Your task to perform on an android device: Open wifi settings Image 0: 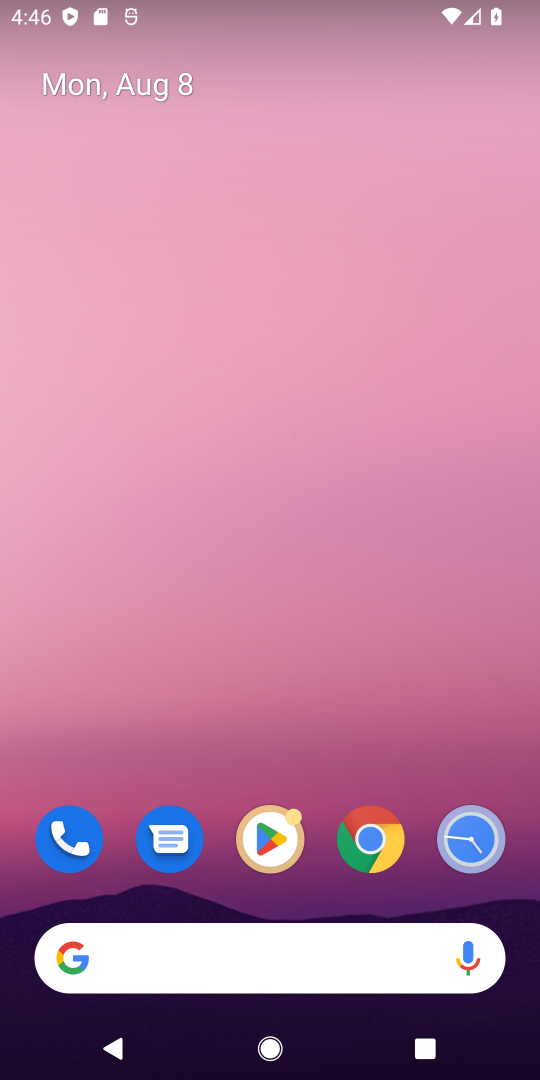
Step 0: drag from (225, 900) to (237, 51)
Your task to perform on an android device: Open wifi settings Image 1: 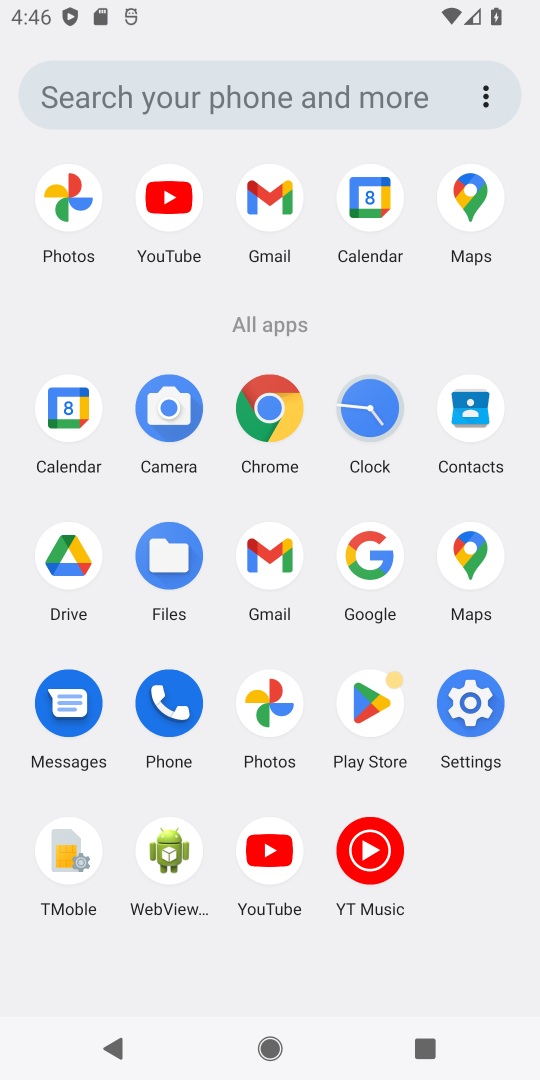
Step 1: click (473, 727)
Your task to perform on an android device: Open wifi settings Image 2: 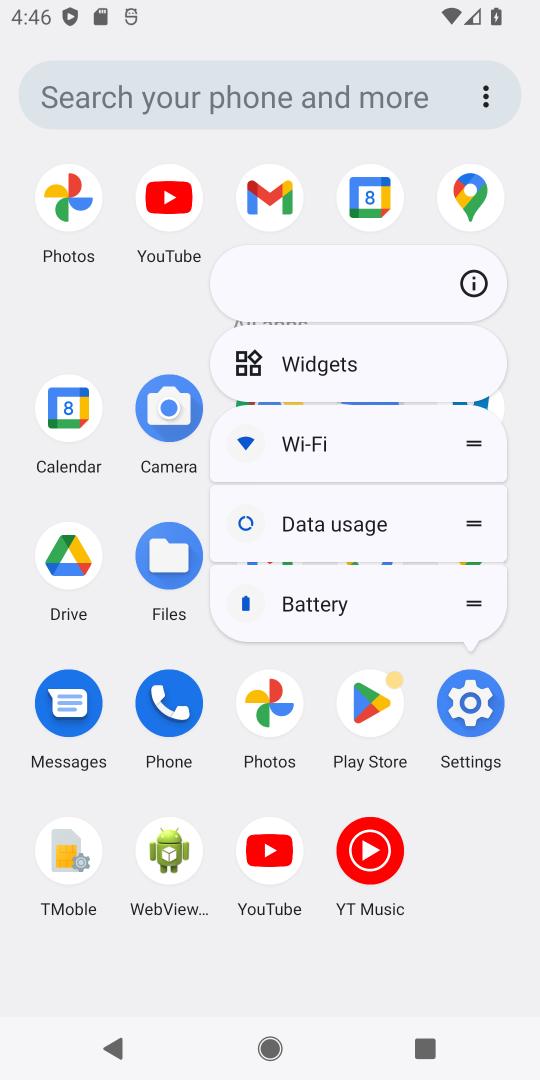
Step 2: click (473, 727)
Your task to perform on an android device: Open wifi settings Image 3: 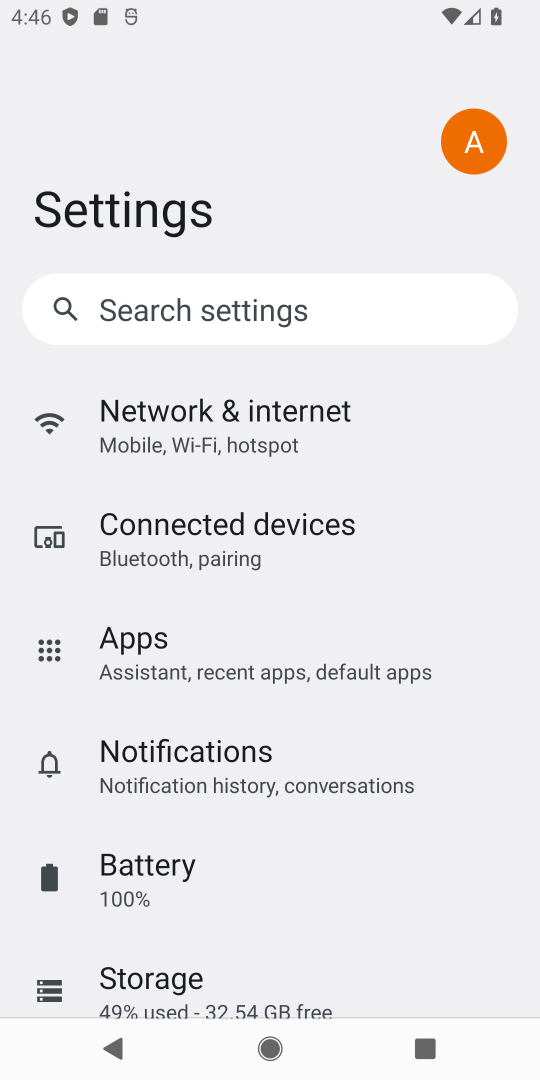
Step 3: click (263, 452)
Your task to perform on an android device: Open wifi settings Image 4: 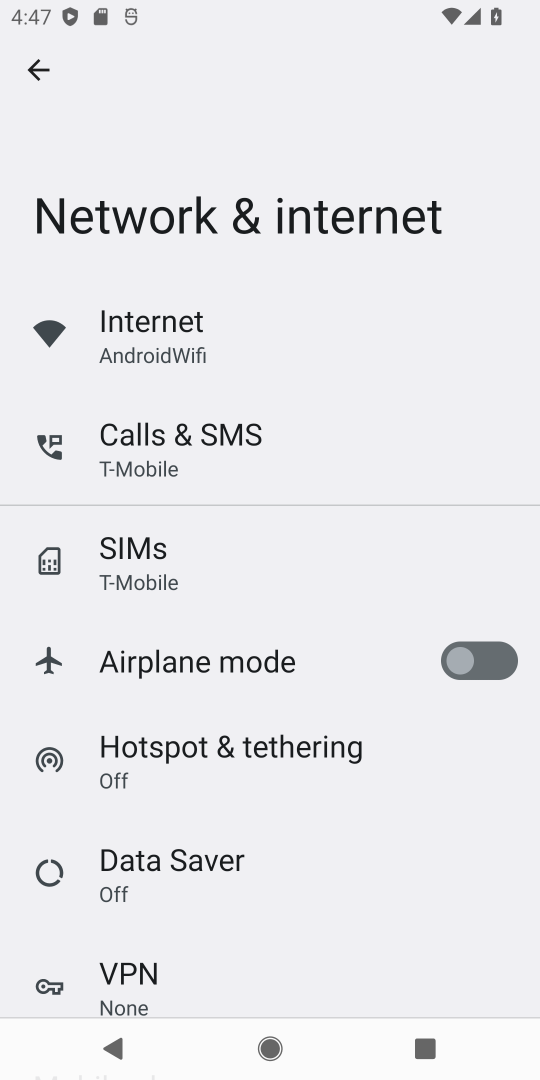
Step 4: click (208, 336)
Your task to perform on an android device: Open wifi settings Image 5: 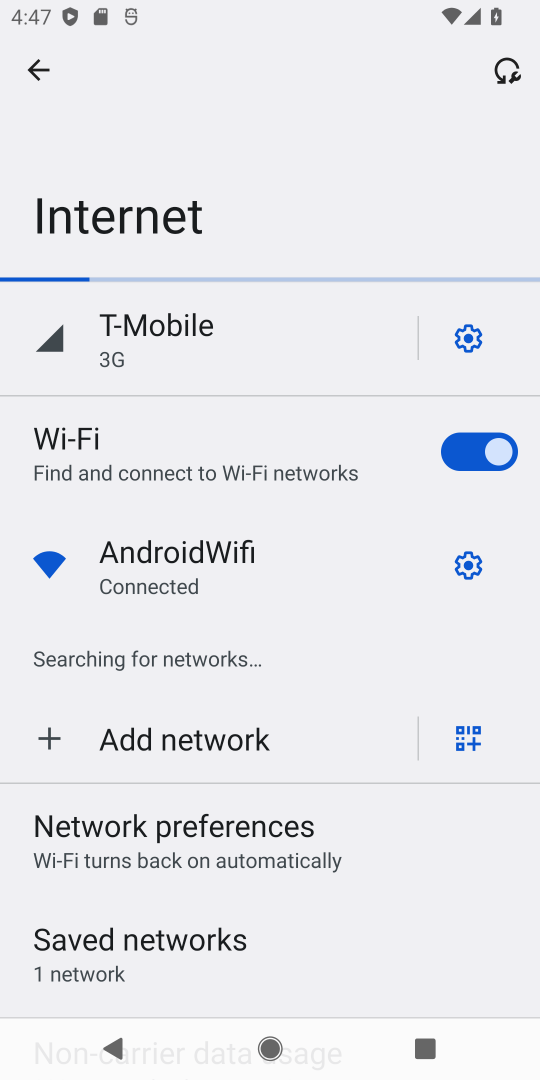
Step 5: task complete